Your task to perform on an android device: open a new tab in the chrome app Image 0: 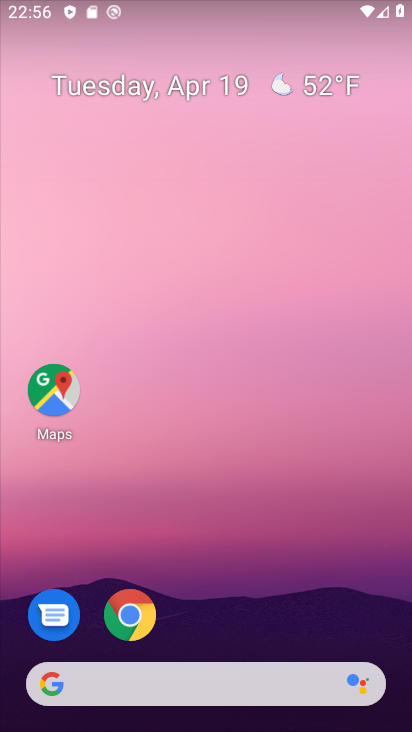
Step 0: click (121, 610)
Your task to perform on an android device: open a new tab in the chrome app Image 1: 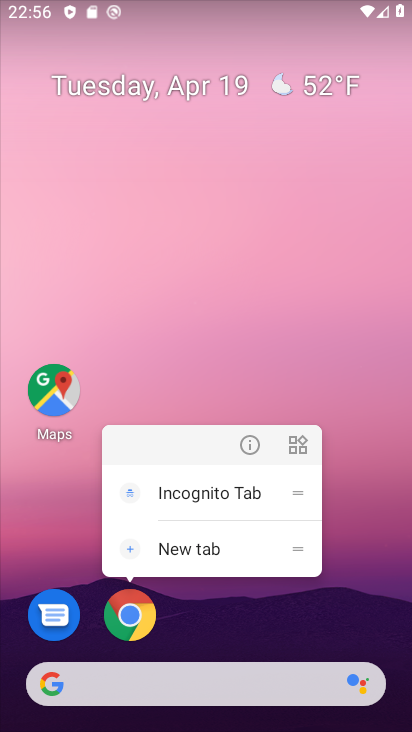
Step 1: click (121, 610)
Your task to perform on an android device: open a new tab in the chrome app Image 2: 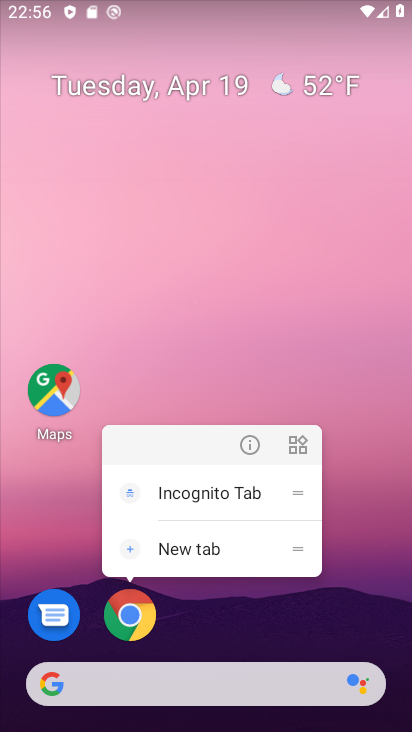
Step 2: click (121, 610)
Your task to perform on an android device: open a new tab in the chrome app Image 3: 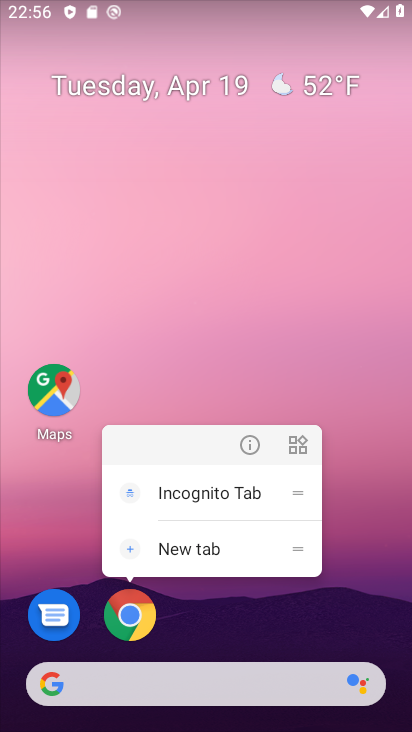
Step 3: click (121, 610)
Your task to perform on an android device: open a new tab in the chrome app Image 4: 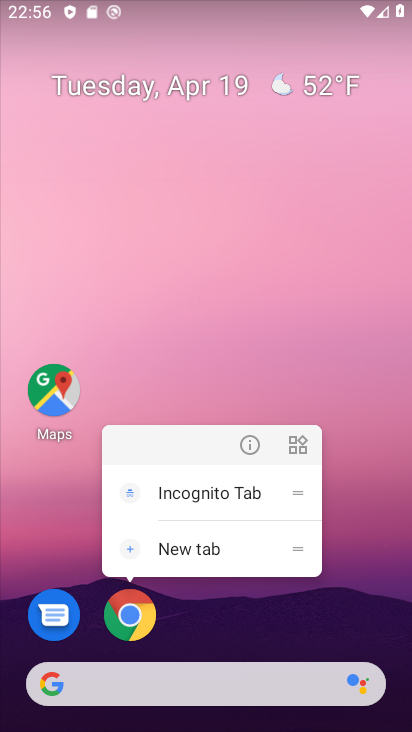
Step 4: click (121, 610)
Your task to perform on an android device: open a new tab in the chrome app Image 5: 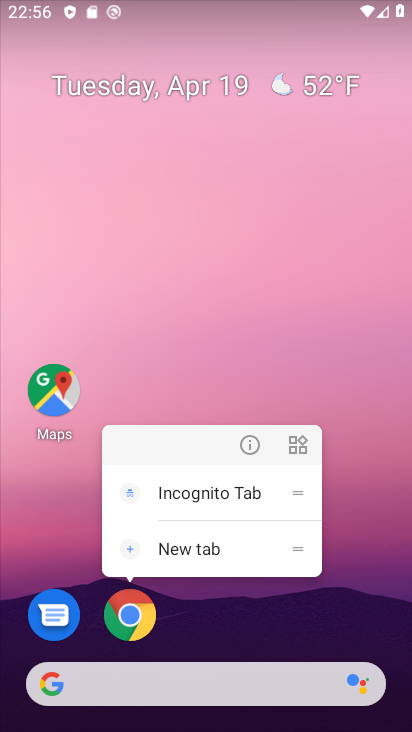
Step 5: click (121, 610)
Your task to perform on an android device: open a new tab in the chrome app Image 6: 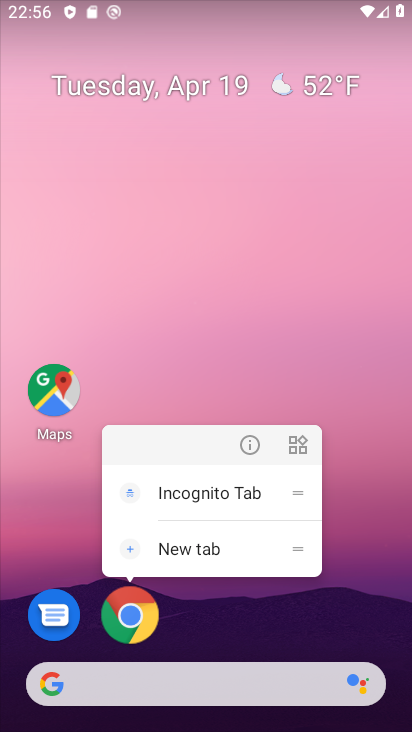
Step 6: click (121, 610)
Your task to perform on an android device: open a new tab in the chrome app Image 7: 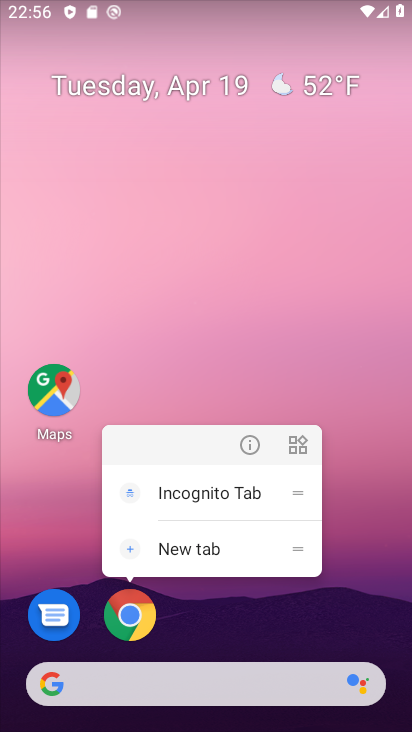
Step 7: click (121, 610)
Your task to perform on an android device: open a new tab in the chrome app Image 8: 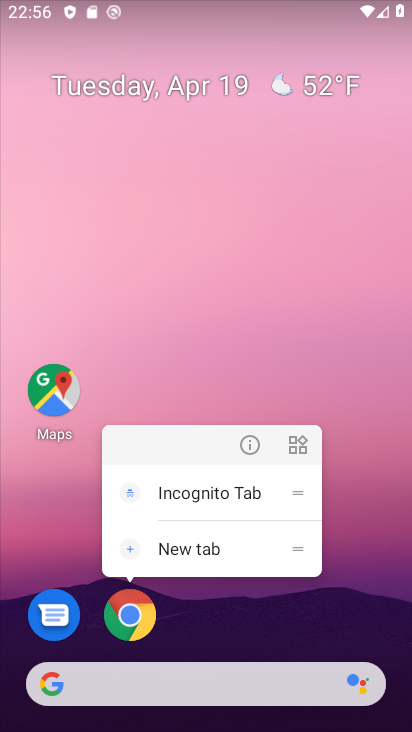
Step 8: click (121, 610)
Your task to perform on an android device: open a new tab in the chrome app Image 9: 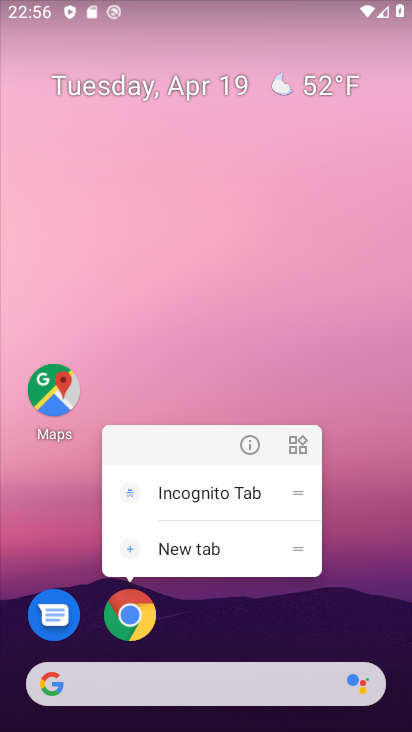
Step 9: click (121, 610)
Your task to perform on an android device: open a new tab in the chrome app Image 10: 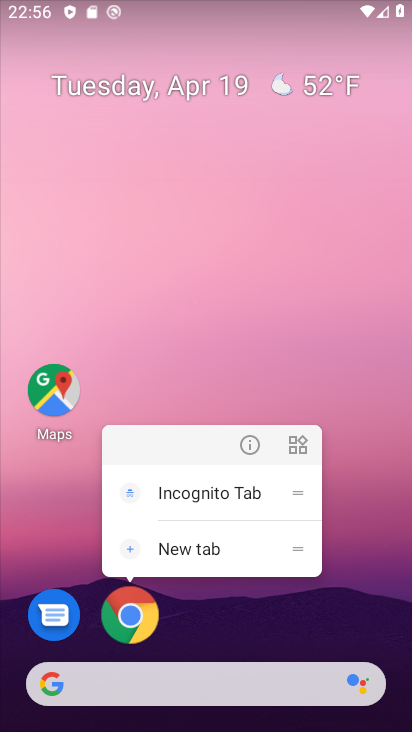
Step 10: click (121, 610)
Your task to perform on an android device: open a new tab in the chrome app Image 11: 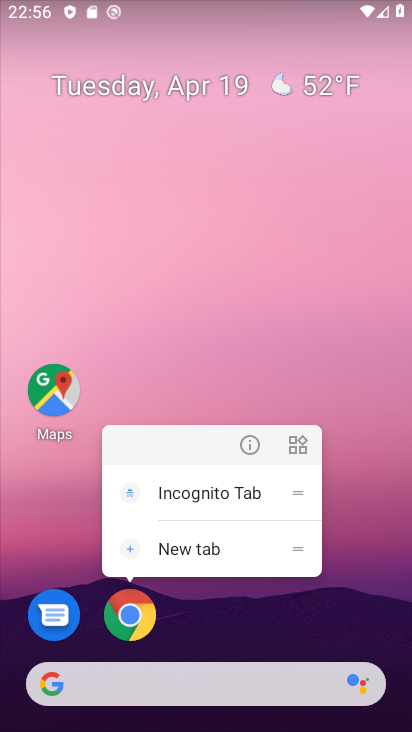
Step 11: click (121, 610)
Your task to perform on an android device: open a new tab in the chrome app Image 12: 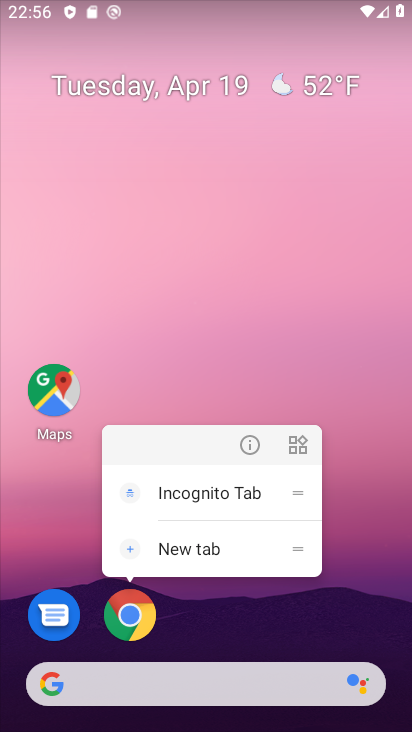
Step 12: click (121, 610)
Your task to perform on an android device: open a new tab in the chrome app Image 13: 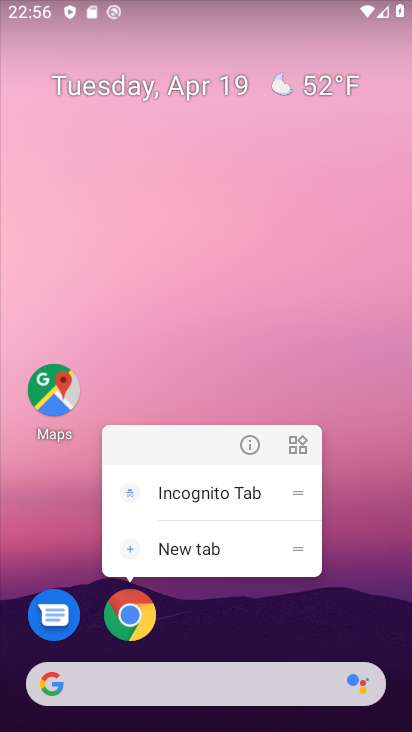
Step 13: click (121, 610)
Your task to perform on an android device: open a new tab in the chrome app Image 14: 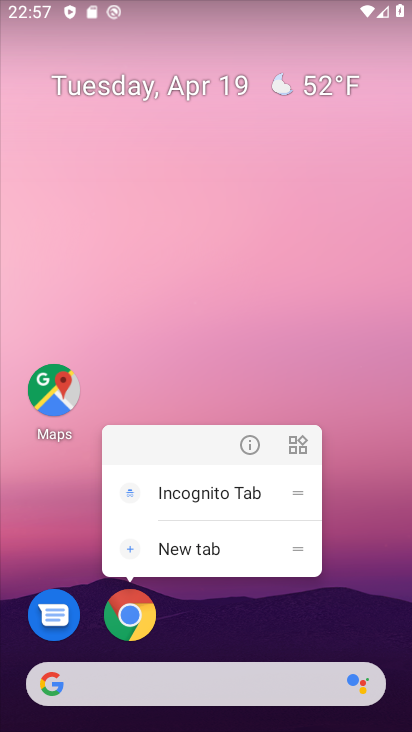
Step 14: click (121, 610)
Your task to perform on an android device: open a new tab in the chrome app Image 15: 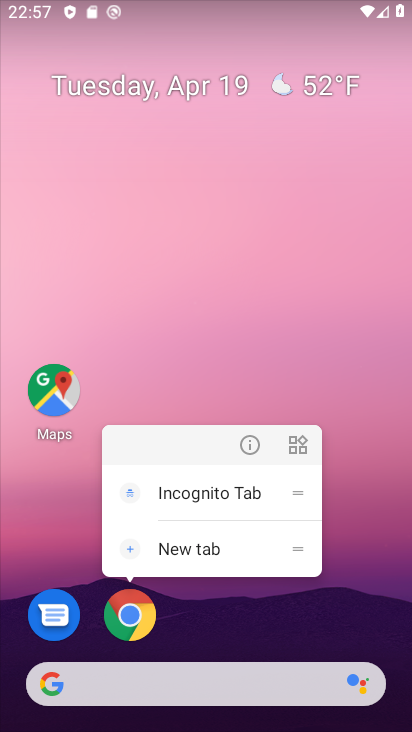
Step 15: click (121, 610)
Your task to perform on an android device: open a new tab in the chrome app Image 16: 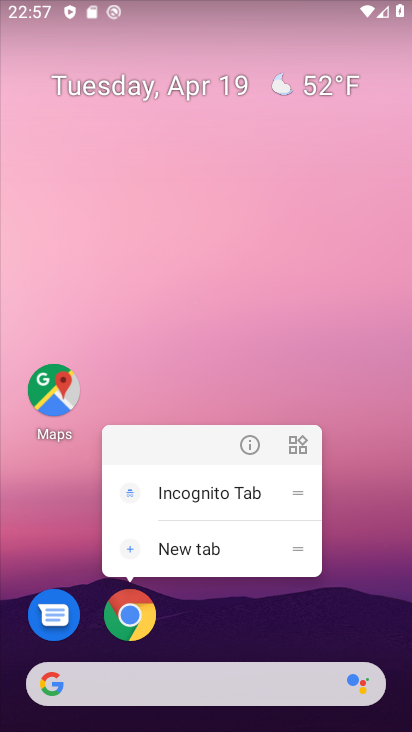
Step 16: click (121, 610)
Your task to perform on an android device: open a new tab in the chrome app Image 17: 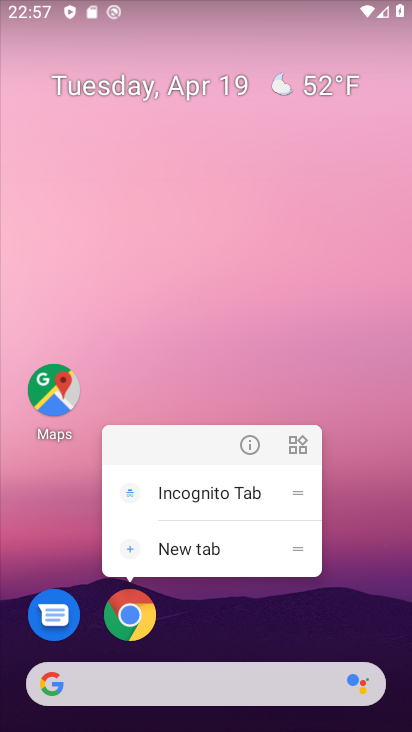
Step 17: click (121, 610)
Your task to perform on an android device: open a new tab in the chrome app Image 18: 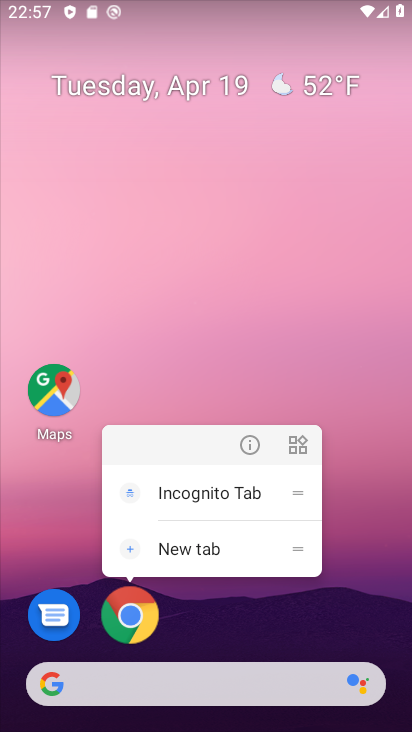
Step 18: click (121, 610)
Your task to perform on an android device: open a new tab in the chrome app Image 19: 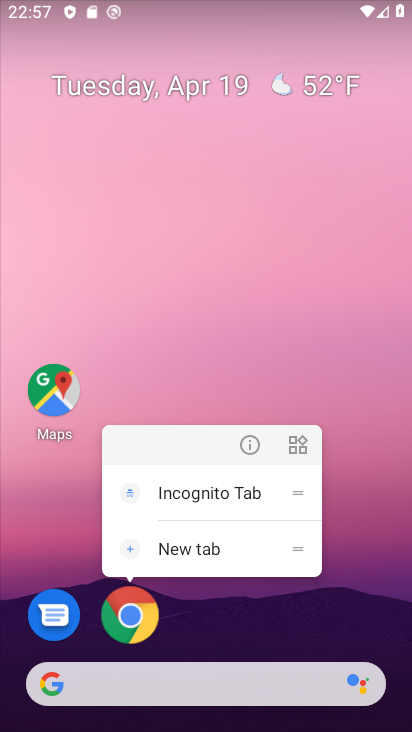
Step 19: click (121, 610)
Your task to perform on an android device: open a new tab in the chrome app Image 20: 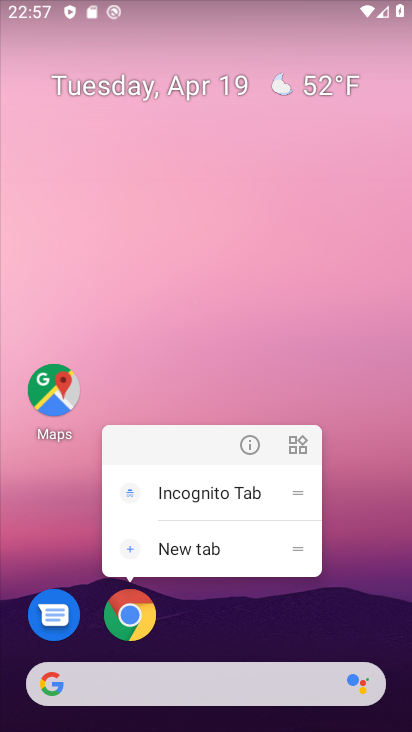
Step 20: click (121, 610)
Your task to perform on an android device: open a new tab in the chrome app Image 21: 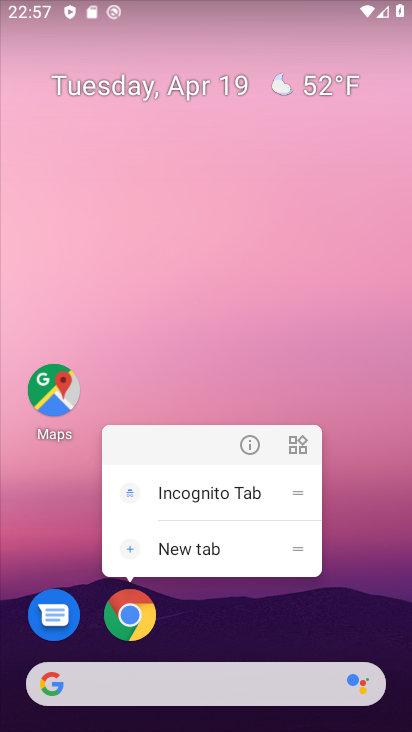
Step 21: click (121, 610)
Your task to perform on an android device: open a new tab in the chrome app Image 22: 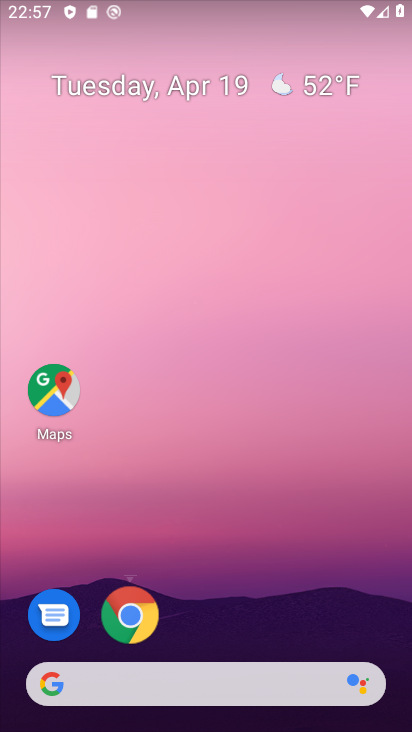
Step 22: click (121, 610)
Your task to perform on an android device: open a new tab in the chrome app Image 23: 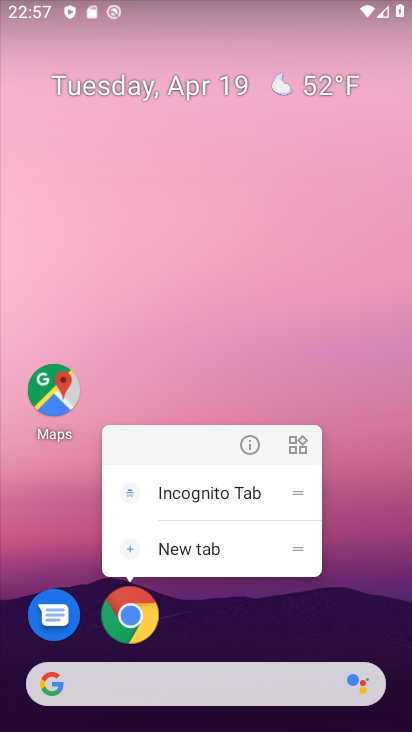
Step 23: click (121, 610)
Your task to perform on an android device: open a new tab in the chrome app Image 24: 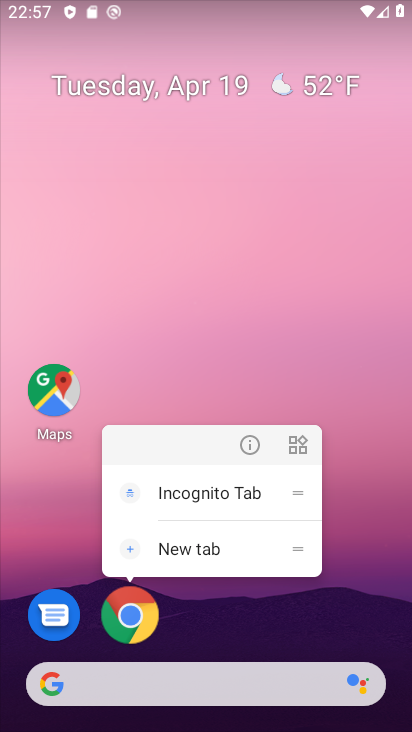
Step 24: click (121, 610)
Your task to perform on an android device: open a new tab in the chrome app Image 25: 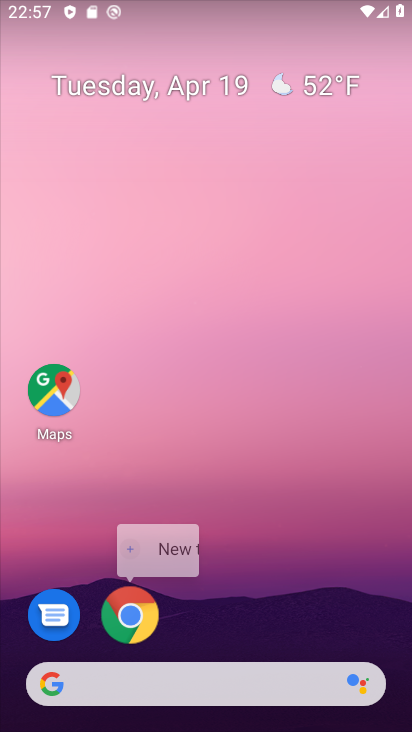
Step 25: click (121, 610)
Your task to perform on an android device: open a new tab in the chrome app Image 26: 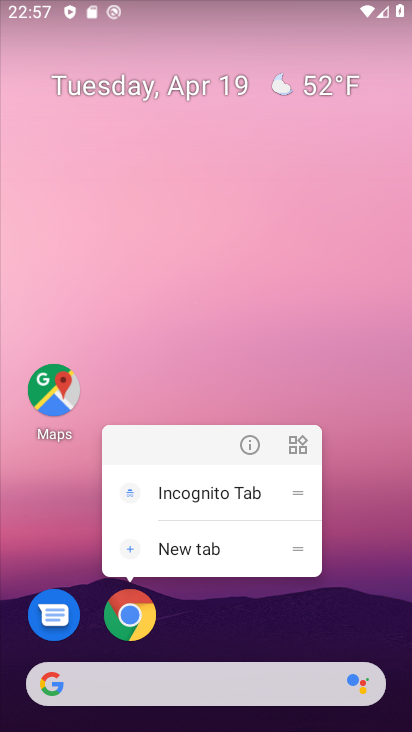
Step 26: click (121, 610)
Your task to perform on an android device: open a new tab in the chrome app Image 27: 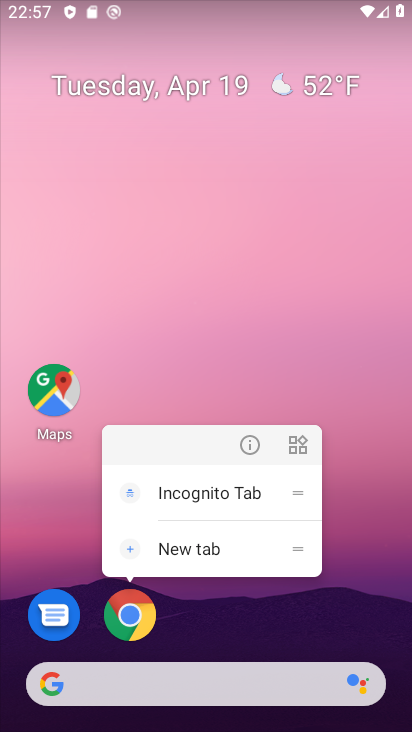
Step 27: click (121, 610)
Your task to perform on an android device: open a new tab in the chrome app Image 28: 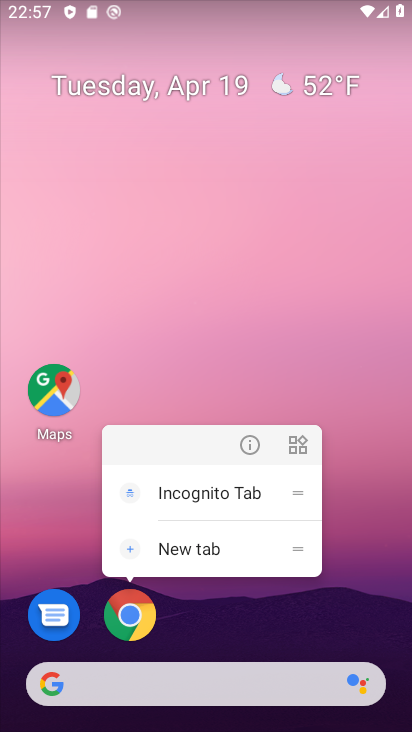
Step 28: click (121, 610)
Your task to perform on an android device: open a new tab in the chrome app Image 29: 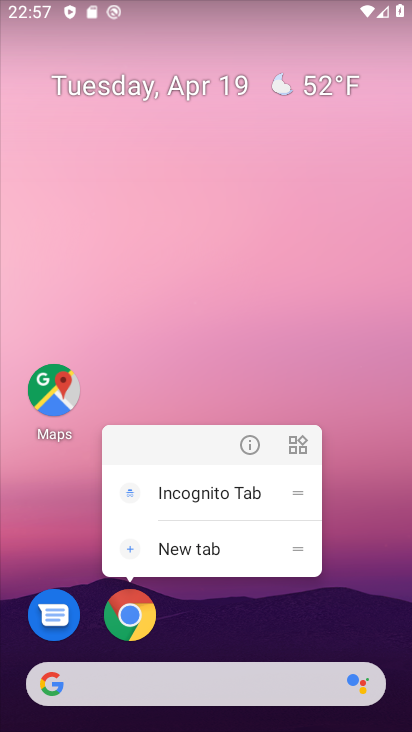
Step 29: click (121, 610)
Your task to perform on an android device: open a new tab in the chrome app Image 30: 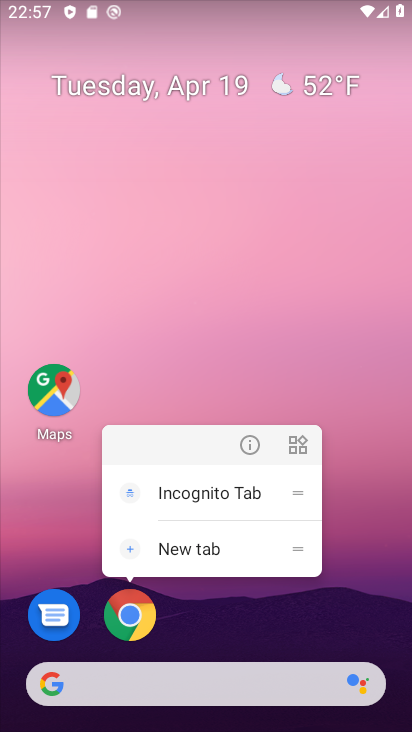
Step 30: click (121, 610)
Your task to perform on an android device: open a new tab in the chrome app Image 31: 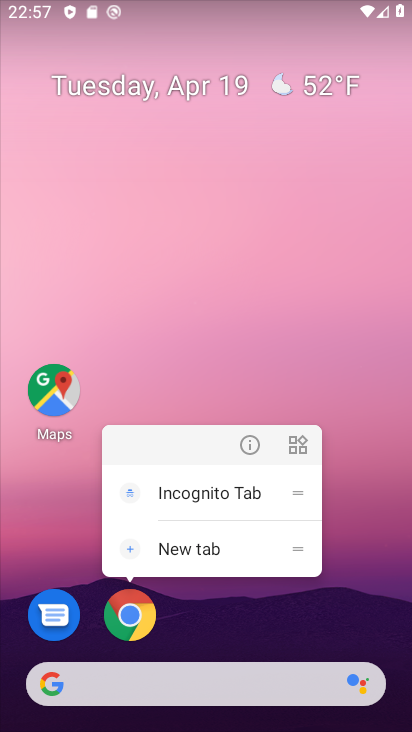
Step 31: click (121, 610)
Your task to perform on an android device: open a new tab in the chrome app Image 32: 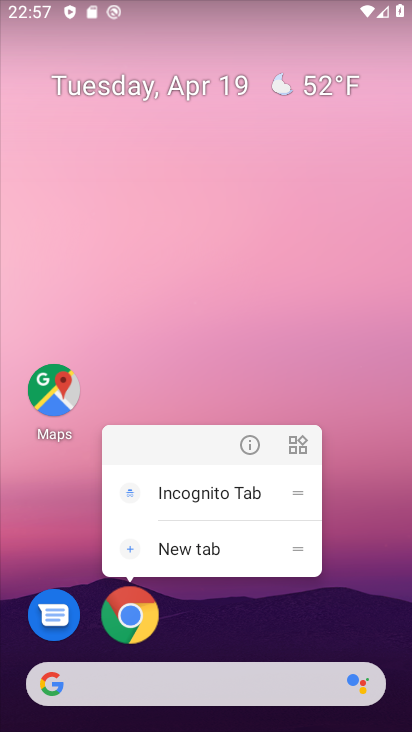
Step 32: click (121, 610)
Your task to perform on an android device: open a new tab in the chrome app Image 33: 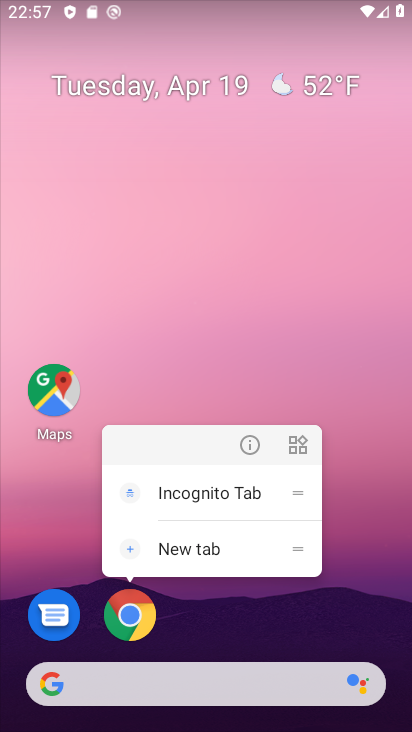
Step 33: click (121, 610)
Your task to perform on an android device: open a new tab in the chrome app Image 34: 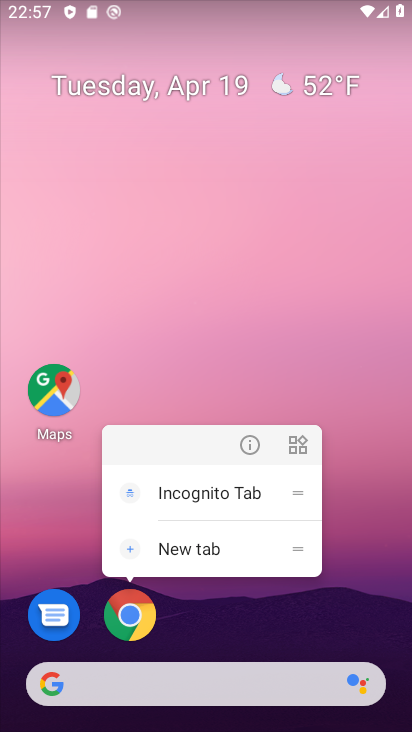
Step 34: click (121, 610)
Your task to perform on an android device: open a new tab in the chrome app Image 35: 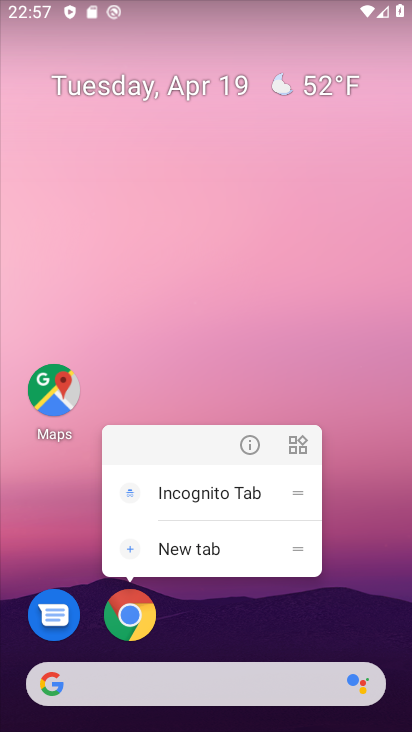
Step 35: click (121, 610)
Your task to perform on an android device: open a new tab in the chrome app Image 36: 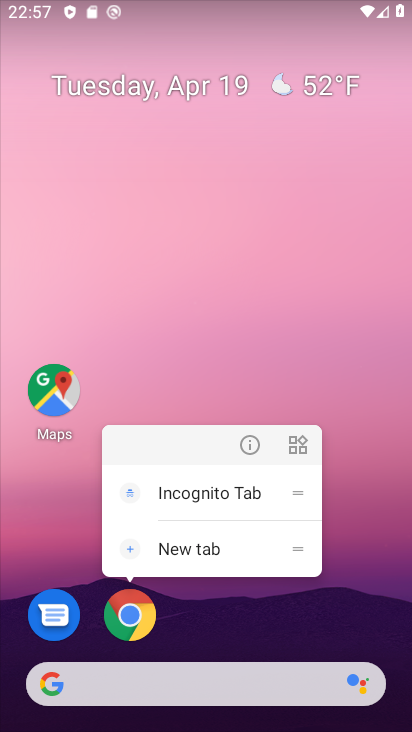
Step 36: click (121, 610)
Your task to perform on an android device: open a new tab in the chrome app Image 37: 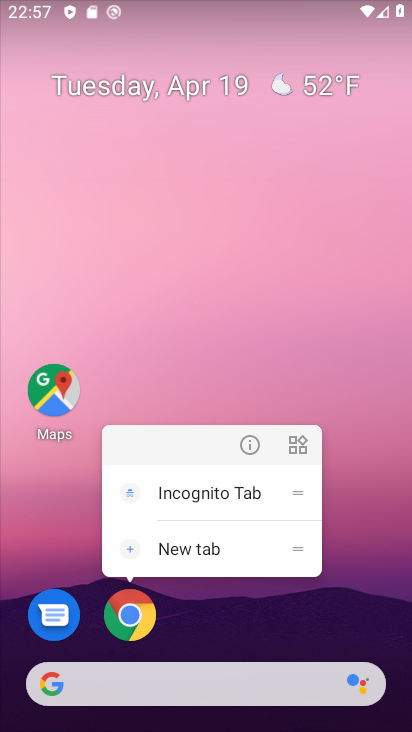
Step 37: click (121, 610)
Your task to perform on an android device: open a new tab in the chrome app Image 38: 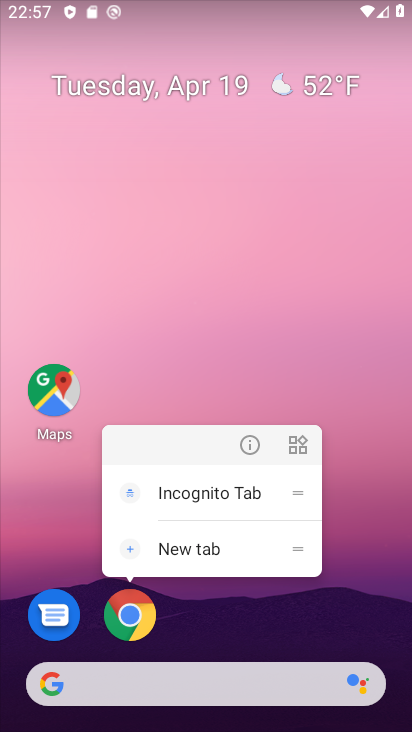
Step 38: click (121, 610)
Your task to perform on an android device: open a new tab in the chrome app Image 39: 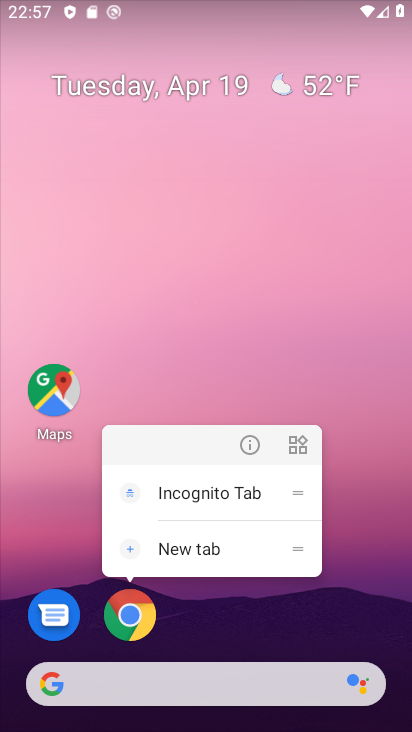
Step 39: click (121, 610)
Your task to perform on an android device: open a new tab in the chrome app Image 40: 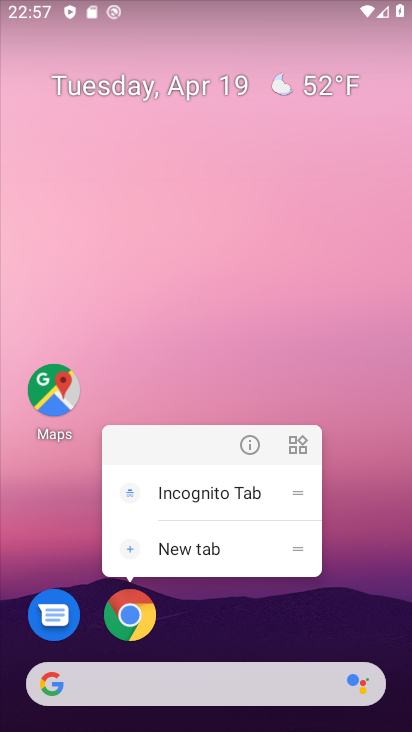
Step 40: click (121, 610)
Your task to perform on an android device: open a new tab in the chrome app Image 41: 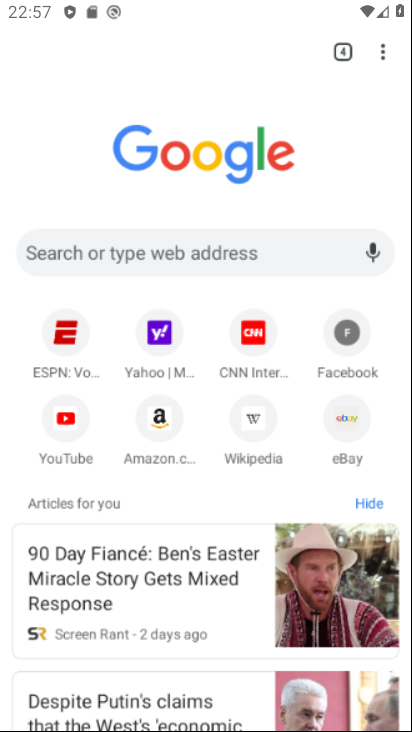
Step 41: click (121, 610)
Your task to perform on an android device: open a new tab in the chrome app Image 42: 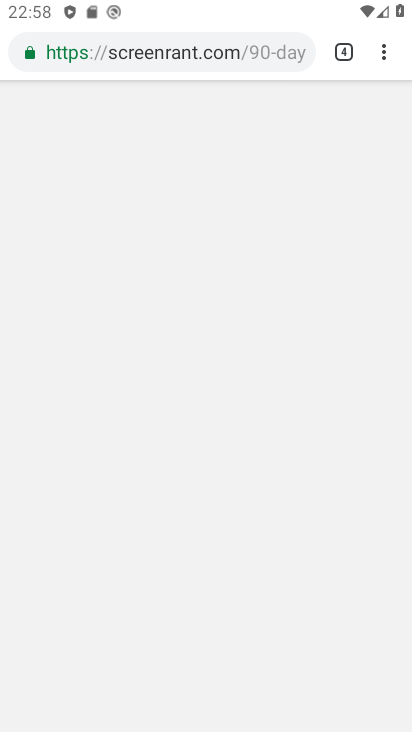
Step 42: click (385, 47)
Your task to perform on an android device: open a new tab in the chrome app Image 43: 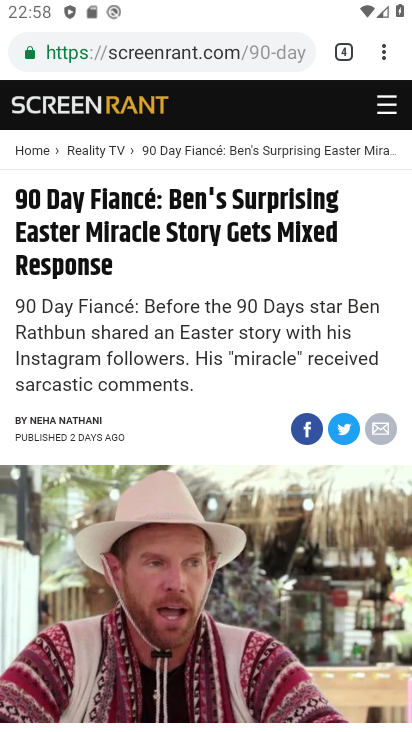
Step 43: click (387, 54)
Your task to perform on an android device: open a new tab in the chrome app Image 44: 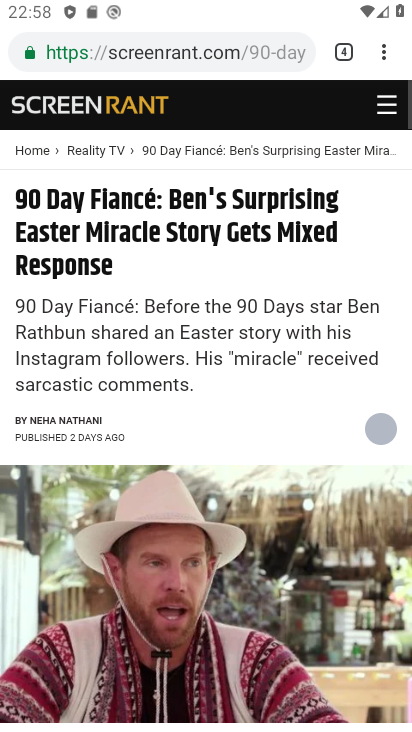
Step 44: click (387, 54)
Your task to perform on an android device: open a new tab in the chrome app Image 45: 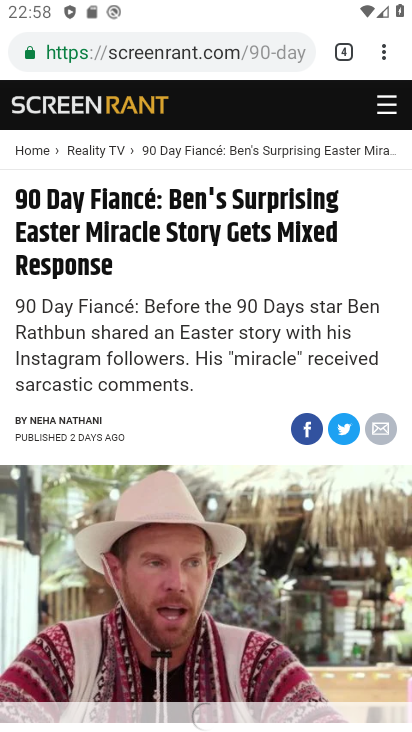
Step 45: click (383, 45)
Your task to perform on an android device: open a new tab in the chrome app Image 46: 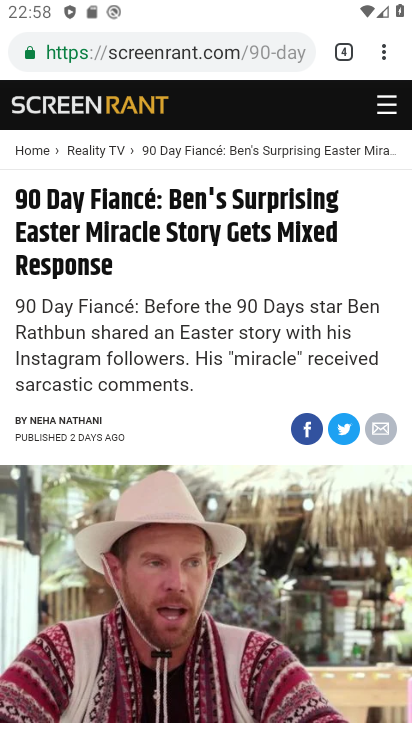
Step 46: click (391, 51)
Your task to perform on an android device: open a new tab in the chrome app Image 47: 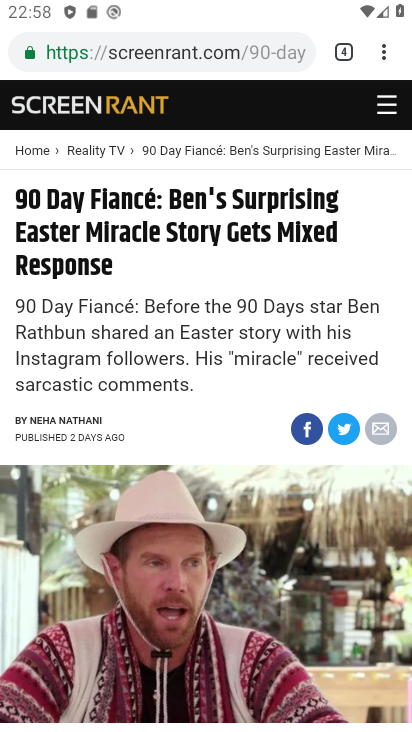
Step 47: click (383, 54)
Your task to perform on an android device: open a new tab in the chrome app Image 48: 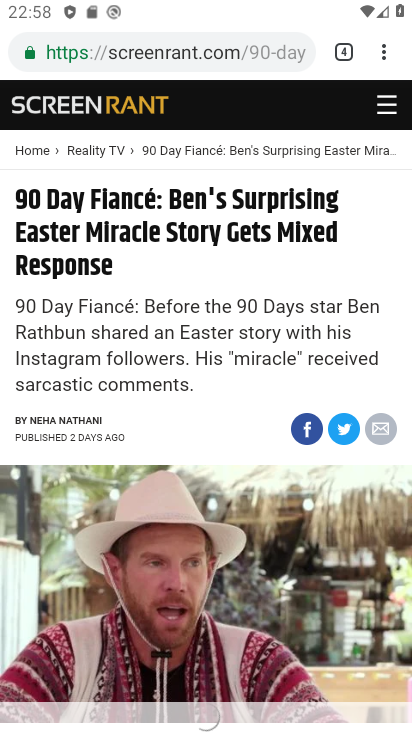
Step 48: click (383, 54)
Your task to perform on an android device: open a new tab in the chrome app Image 49: 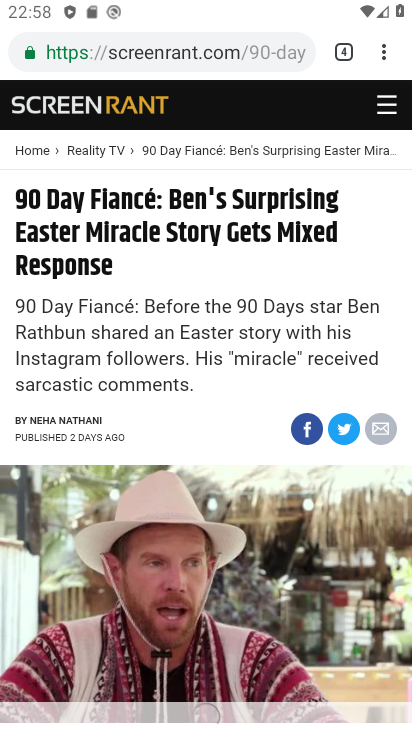
Step 49: click (386, 40)
Your task to perform on an android device: open a new tab in the chrome app Image 50: 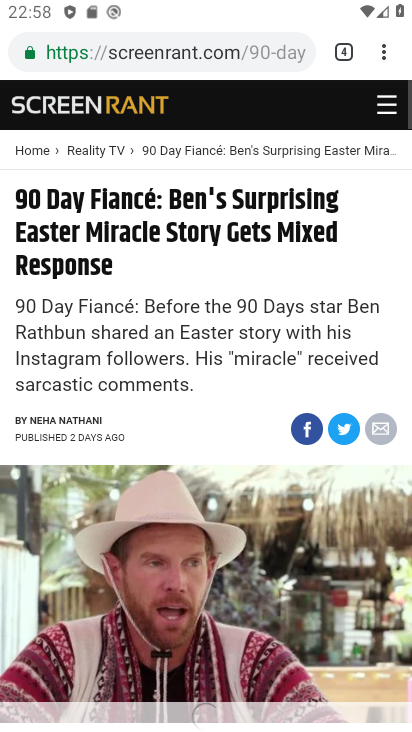
Step 50: click (388, 53)
Your task to perform on an android device: open a new tab in the chrome app Image 51: 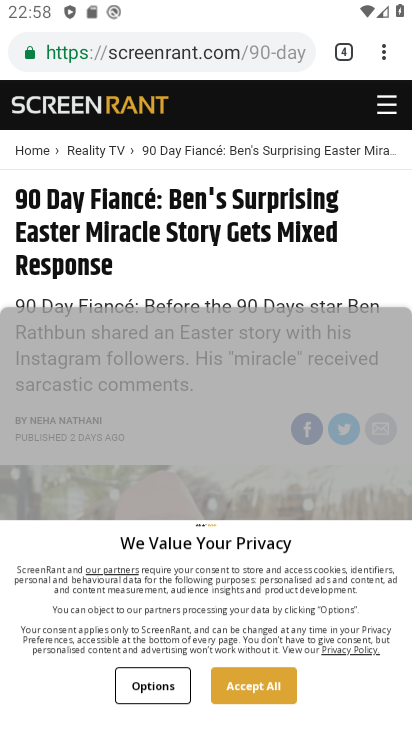
Step 51: click (380, 49)
Your task to perform on an android device: open a new tab in the chrome app Image 52: 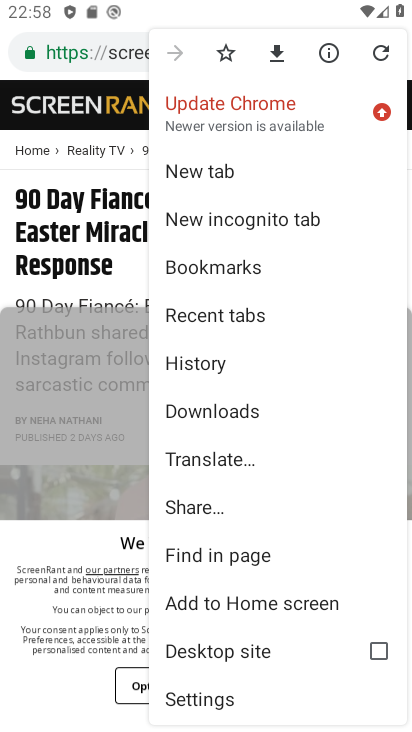
Step 52: click (210, 170)
Your task to perform on an android device: open a new tab in the chrome app Image 53: 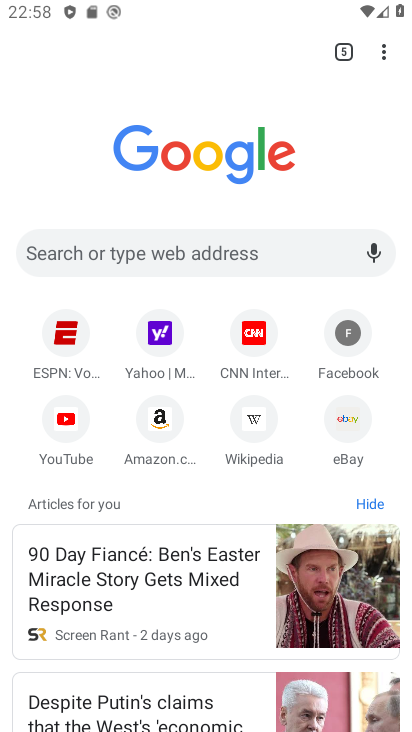
Step 53: task complete